Your task to perform on an android device: toggle notifications settings in the gmail app Image 0: 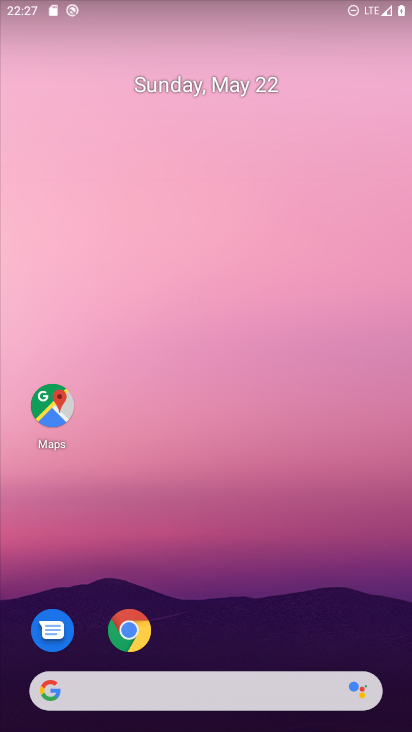
Step 0: press home button
Your task to perform on an android device: toggle notifications settings in the gmail app Image 1: 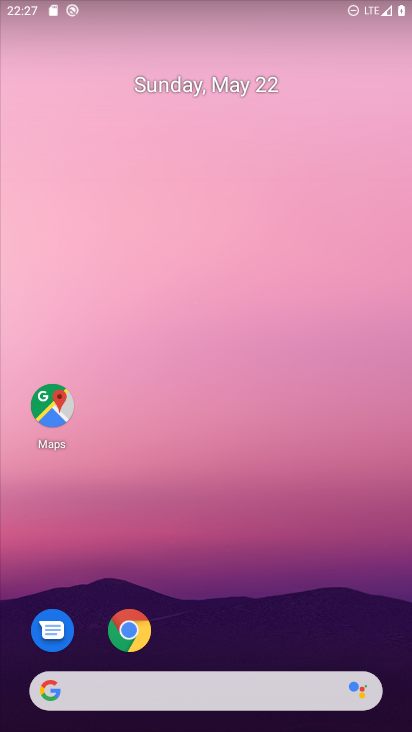
Step 1: drag from (149, 689) to (268, 239)
Your task to perform on an android device: toggle notifications settings in the gmail app Image 2: 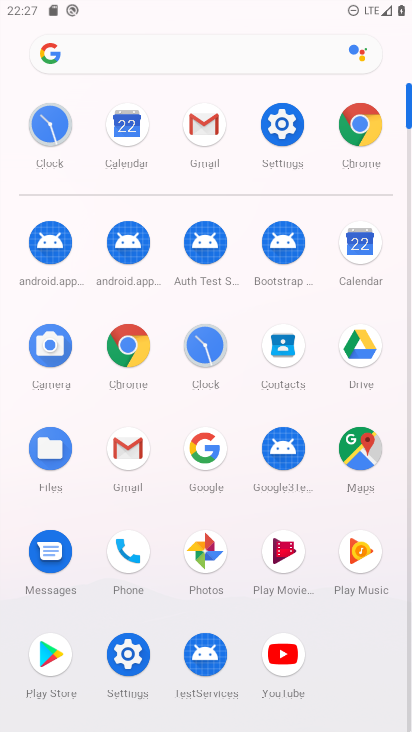
Step 2: click (206, 130)
Your task to perform on an android device: toggle notifications settings in the gmail app Image 3: 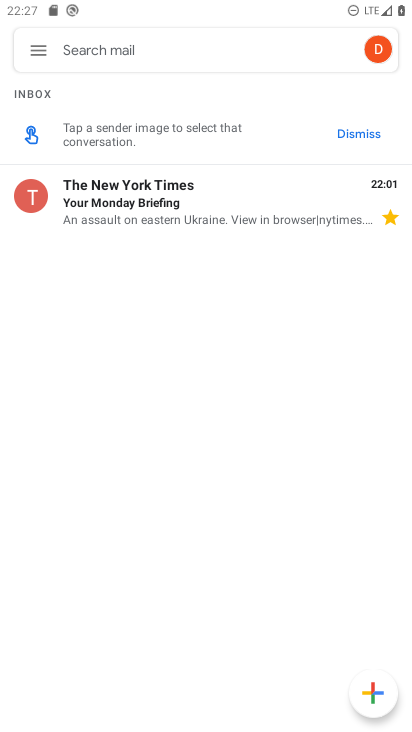
Step 3: click (38, 51)
Your task to perform on an android device: toggle notifications settings in the gmail app Image 4: 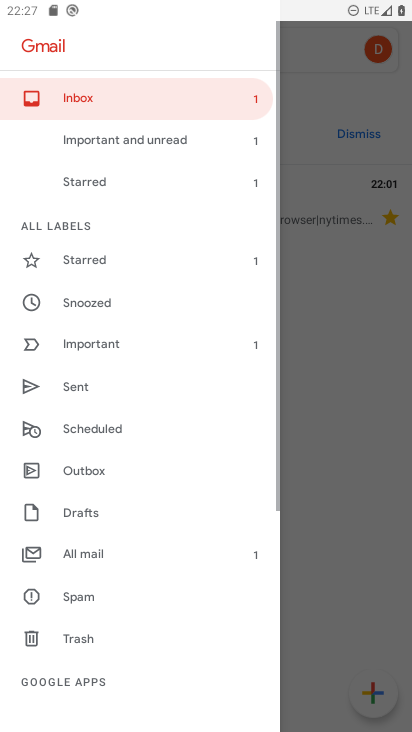
Step 4: drag from (177, 574) to (274, 62)
Your task to perform on an android device: toggle notifications settings in the gmail app Image 5: 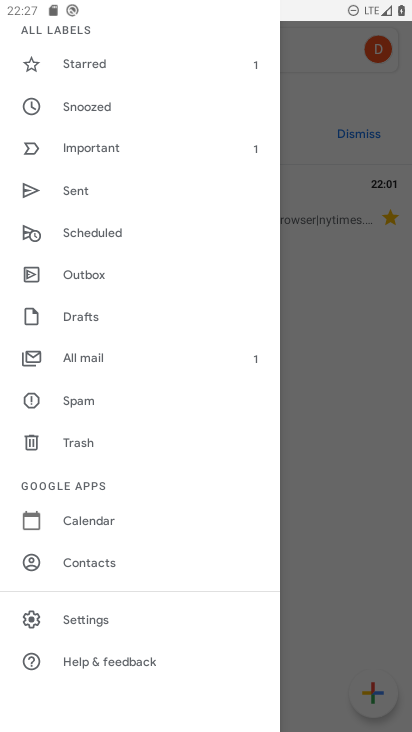
Step 5: click (95, 623)
Your task to perform on an android device: toggle notifications settings in the gmail app Image 6: 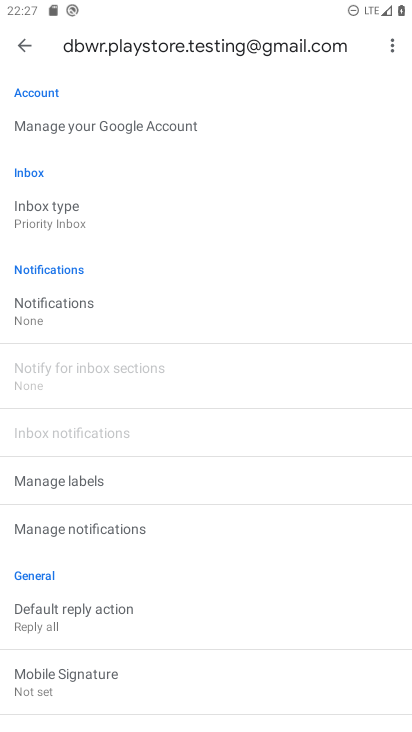
Step 6: click (63, 315)
Your task to perform on an android device: toggle notifications settings in the gmail app Image 7: 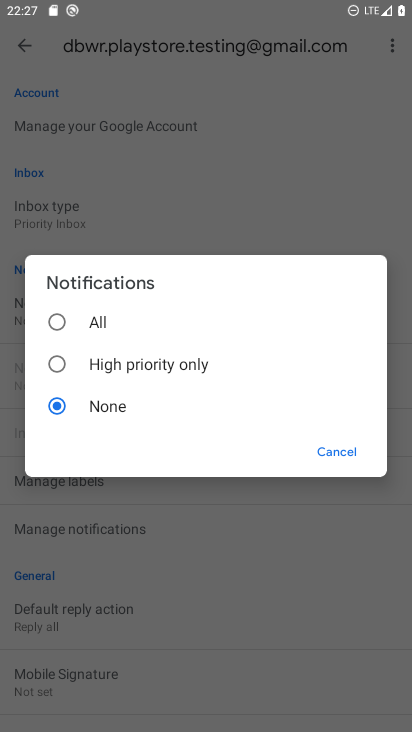
Step 7: click (57, 321)
Your task to perform on an android device: toggle notifications settings in the gmail app Image 8: 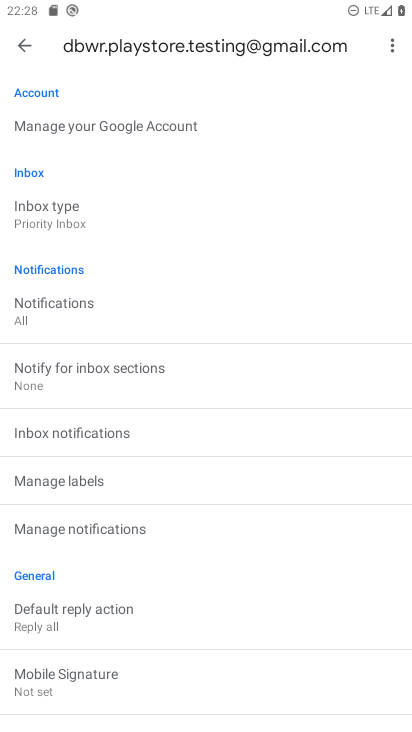
Step 8: task complete